Your task to perform on an android device: Open settings on Google Maps Image 0: 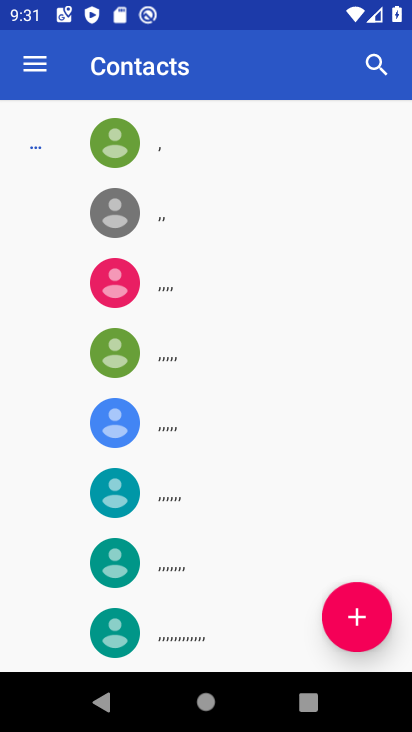
Step 0: press home button
Your task to perform on an android device: Open settings on Google Maps Image 1: 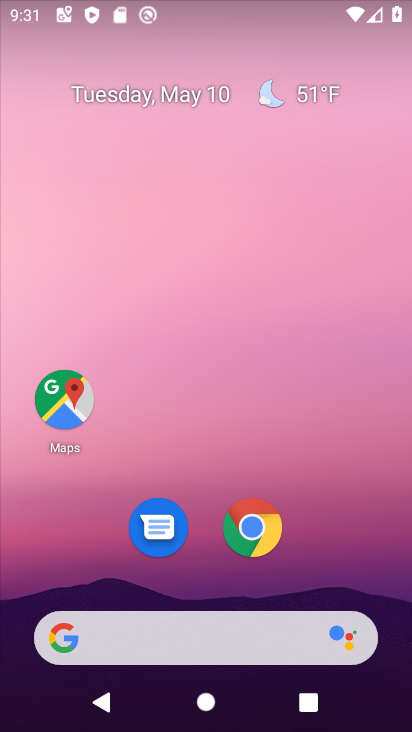
Step 1: drag from (237, 729) to (237, 192)
Your task to perform on an android device: Open settings on Google Maps Image 2: 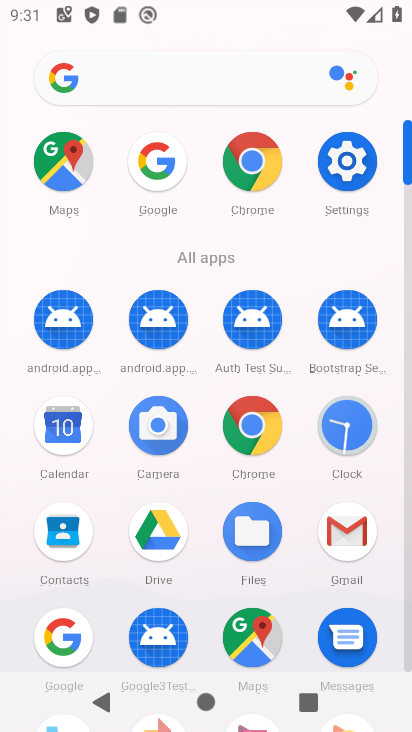
Step 2: click (63, 166)
Your task to perform on an android device: Open settings on Google Maps Image 3: 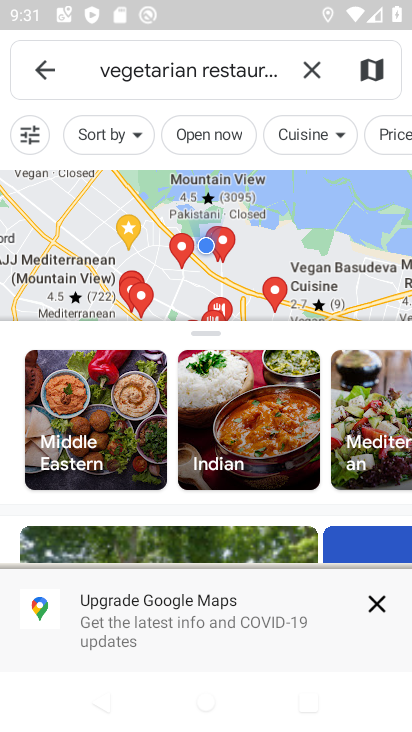
Step 3: click (43, 67)
Your task to perform on an android device: Open settings on Google Maps Image 4: 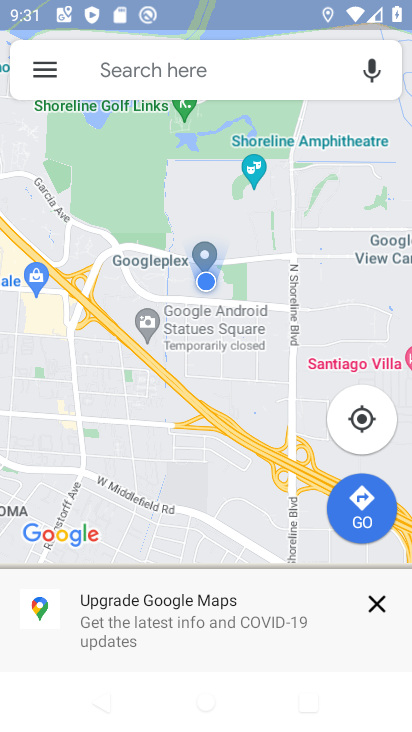
Step 4: click (43, 67)
Your task to perform on an android device: Open settings on Google Maps Image 5: 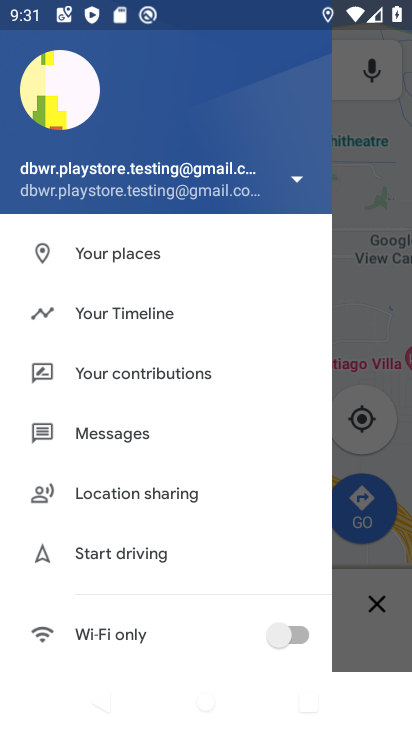
Step 5: drag from (173, 607) to (178, 299)
Your task to perform on an android device: Open settings on Google Maps Image 6: 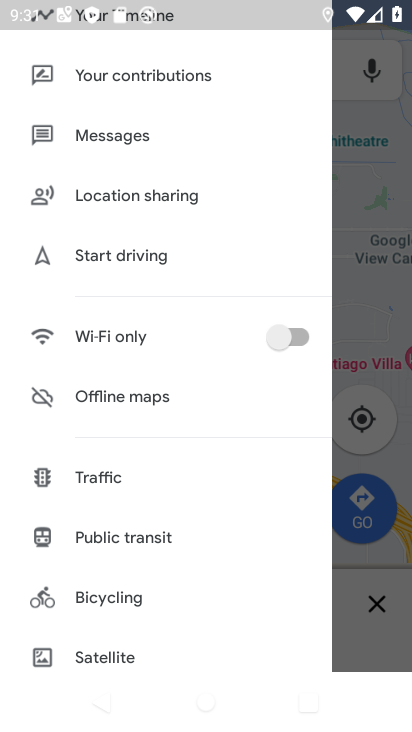
Step 6: drag from (129, 636) to (141, 322)
Your task to perform on an android device: Open settings on Google Maps Image 7: 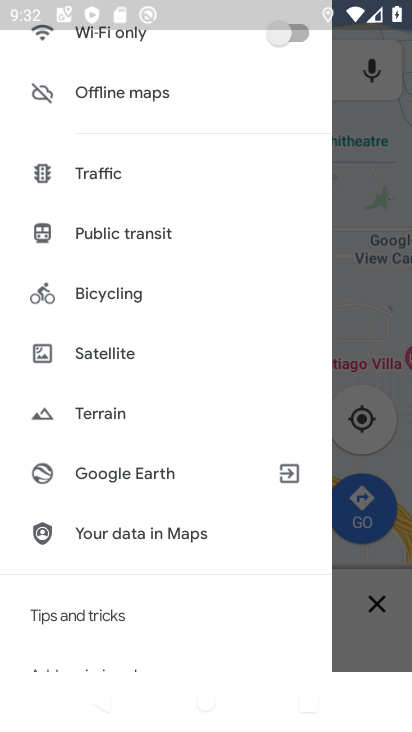
Step 7: drag from (131, 654) to (146, 377)
Your task to perform on an android device: Open settings on Google Maps Image 8: 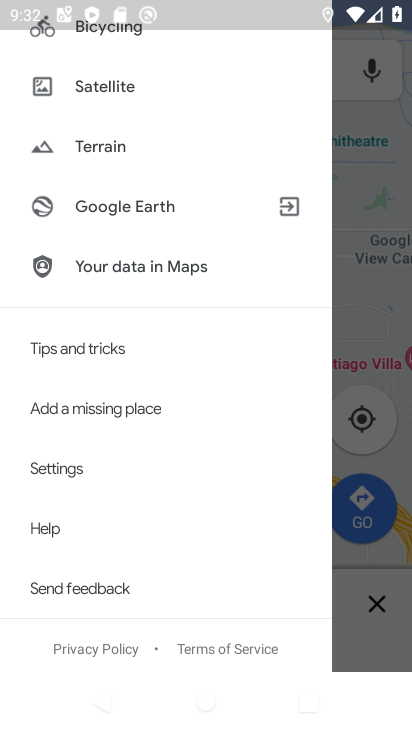
Step 8: click (71, 469)
Your task to perform on an android device: Open settings on Google Maps Image 9: 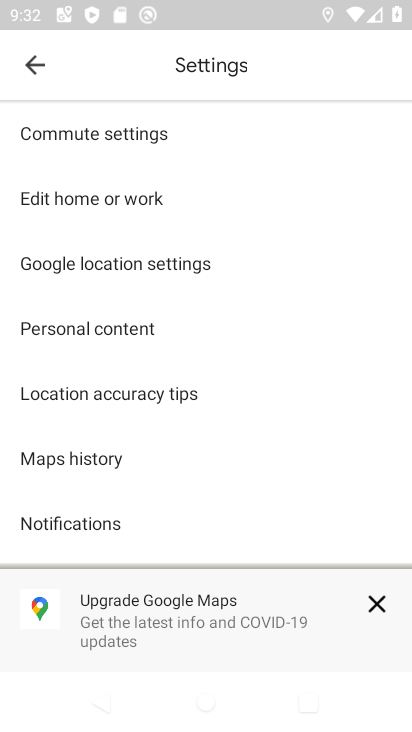
Step 9: task complete